Your task to perform on an android device: find snoozed emails in the gmail app Image 0: 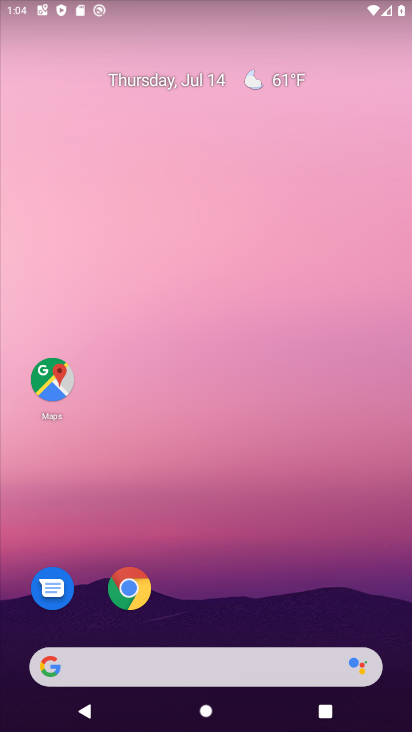
Step 0: drag from (255, 535) to (258, 182)
Your task to perform on an android device: find snoozed emails in the gmail app Image 1: 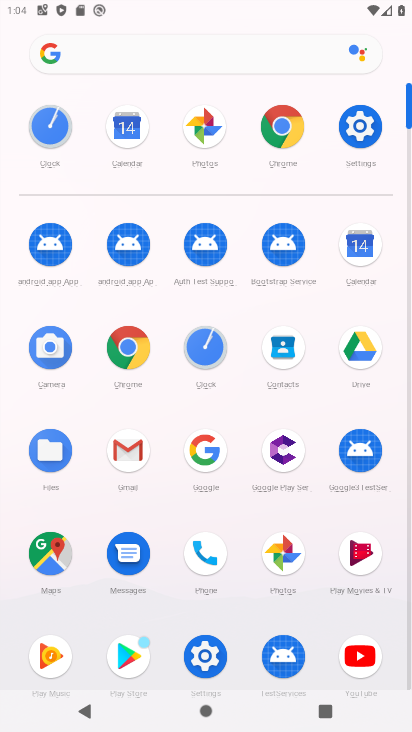
Step 1: click (111, 440)
Your task to perform on an android device: find snoozed emails in the gmail app Image 2: 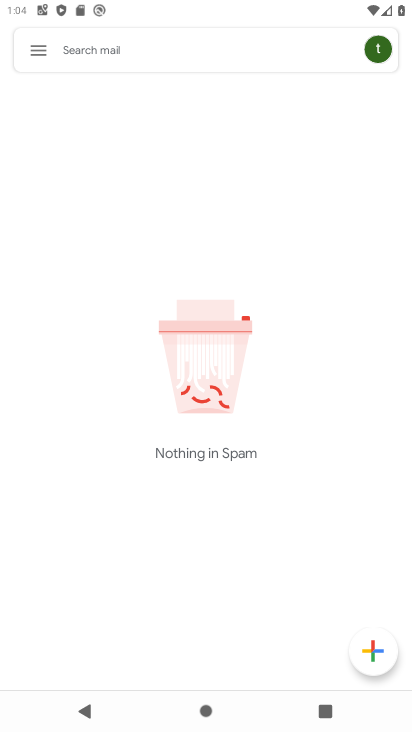
Step 2: click (27, 46)
Your task to perform on an android device: find snoozed emails in the gmail app Image 3: 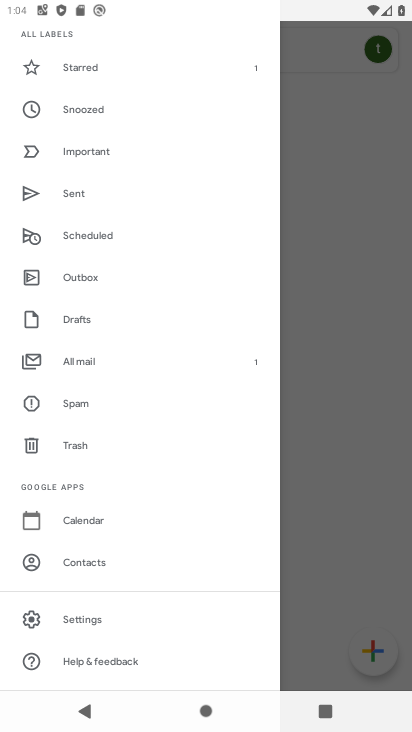
Step 3: click (89, 96)
Your task to perform on an android device: find snoozed emails in the gmail app Image 4: 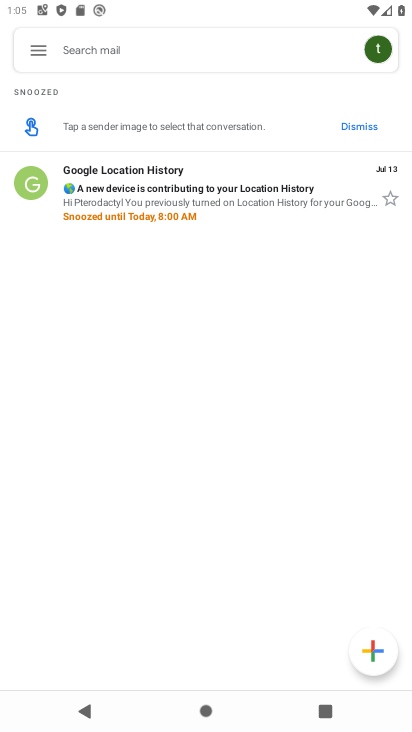
Step 4: task complete